Your task to perform on an android device: Search for seafood restaurants on Google Maps Image 0: 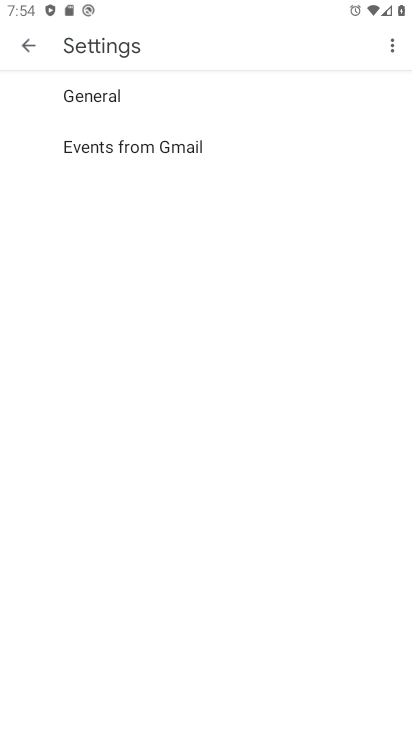
Step 0: press home button
Your task to perform on an android device: Search for seafood restaurants on Google Maps Image 1: 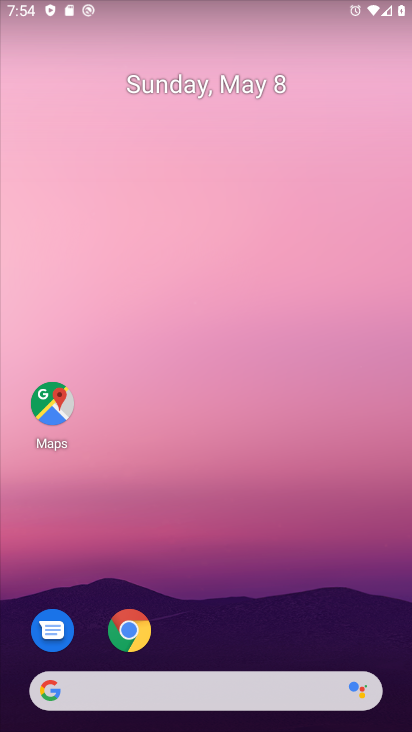
Step 1: drag from (193, 657) to (161, 85)
Your task to perform on an android device: Search for seafood restaurants on Google Maps Image 2: 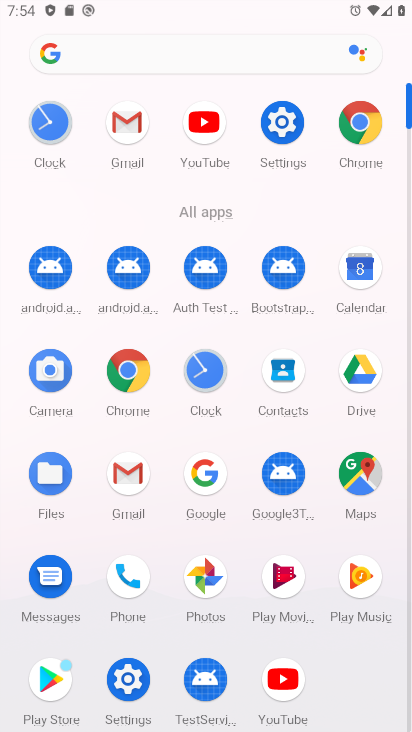
Step 2: click (359, 481)
Your task to perform on an android device: Search for seafood restaurants on Google Maps Image 3: 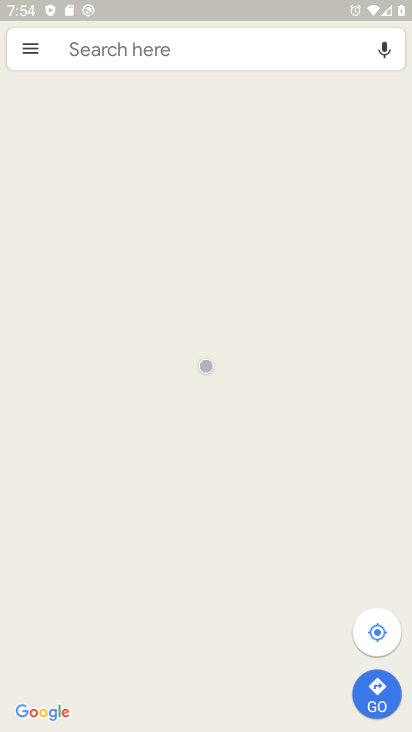
Step 3: click (142, 51)
Your task to perform on an android device: Search for seafood restaurants on Google Maps Image 4: 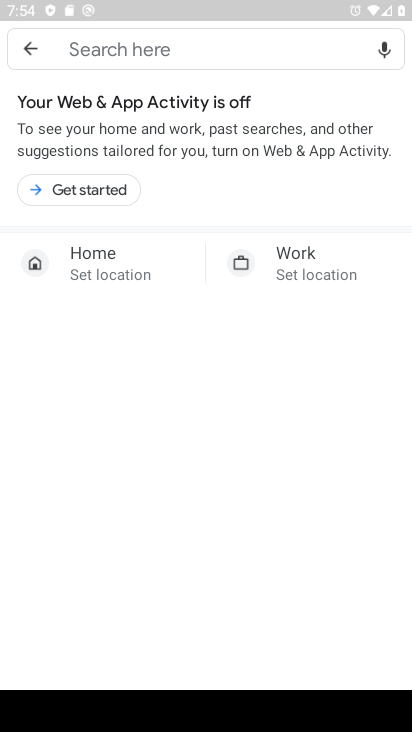
Step 4: click (94, 196)
Your task to perform on an android device: Search for seafood restaurants on Google Maps Image 5: 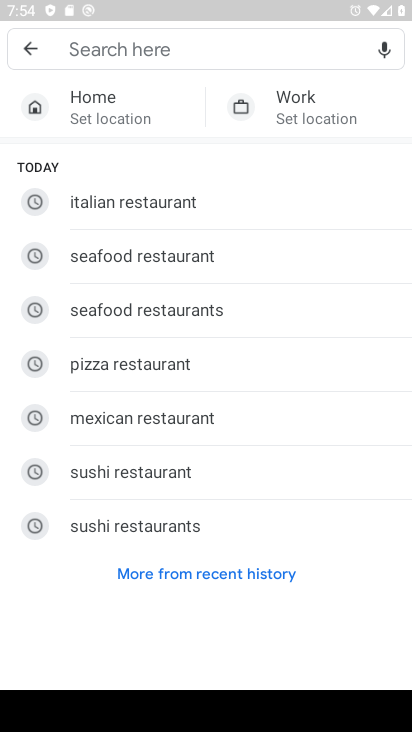
Step 5: click (139, 301)
Your task to perform on an android device: Search for seafood restaurants on Google Maps Image 6: 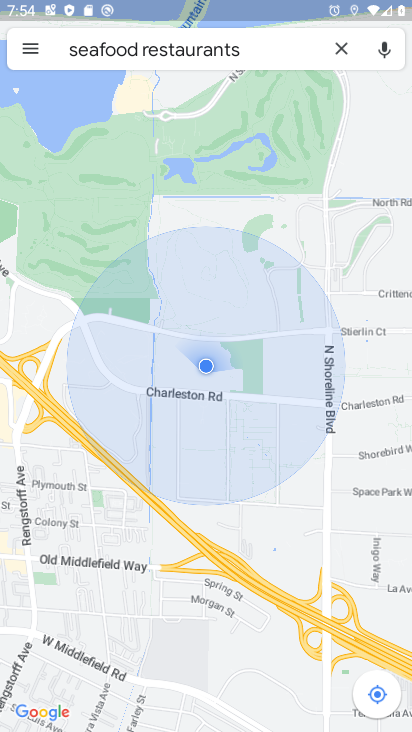
Step 6: task complete